Your task to perform on an android device: What's the weather? Image 0: 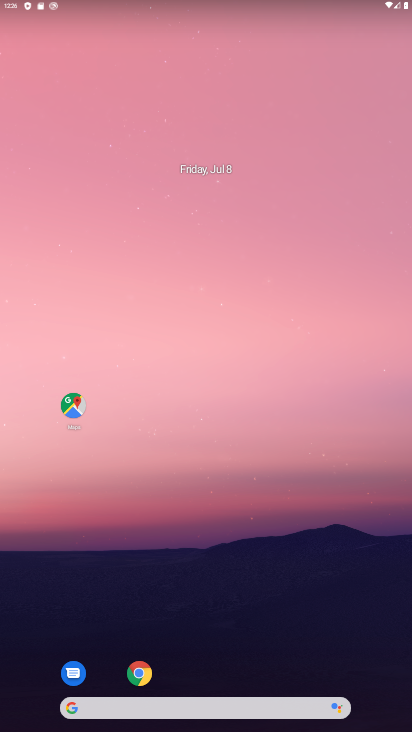
Step 0: drag from (202, 665) to (272, 19)
Your task to perform on an android device: What's the weather? Image 1: 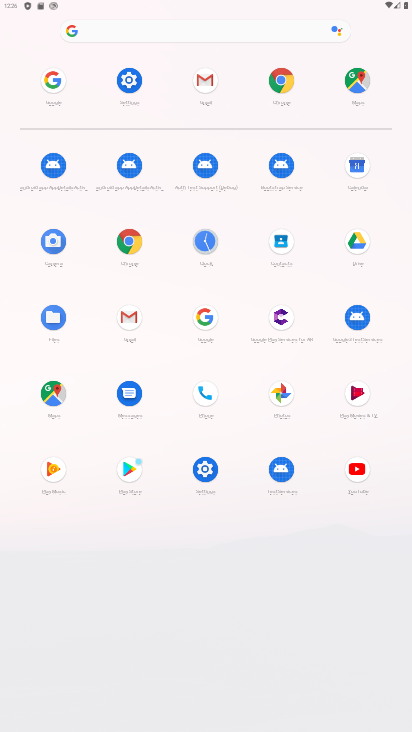
Step 1: click (202, 321)
Your task to perform on an android device: What's the weather? Image 2: 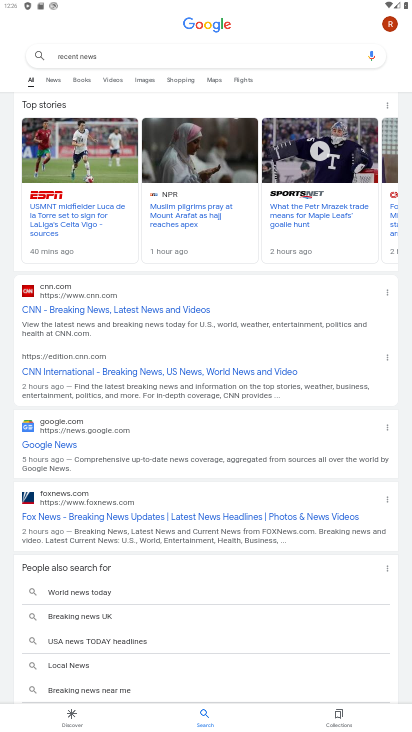
Step 2: click (215, 54)
Your task to perform on an android device: What's the weather? Image 3: 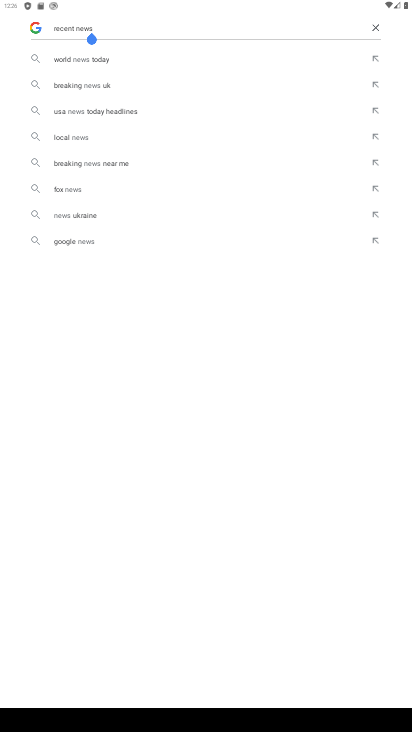
Step 3: click (369, 28)
Your task to perform on an android device: What's the weather? Image 4: 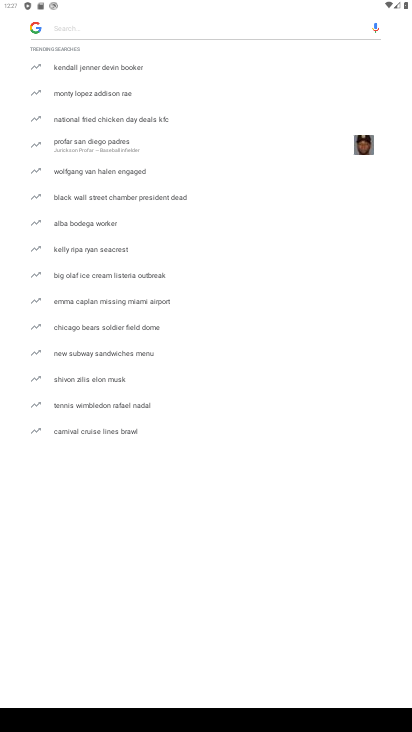
Step 4: type "whats the weather"
Your task to perform on an android device: What's the weather? Image 5: 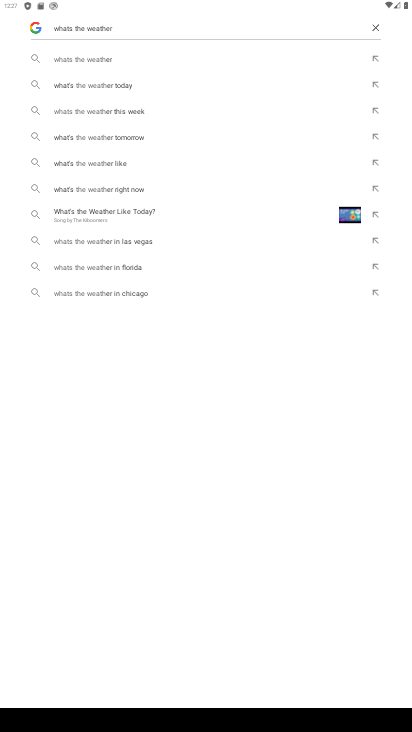
Step 5: click (116, 63)
Your task to perform on an android device: What's the weather? Image 6: 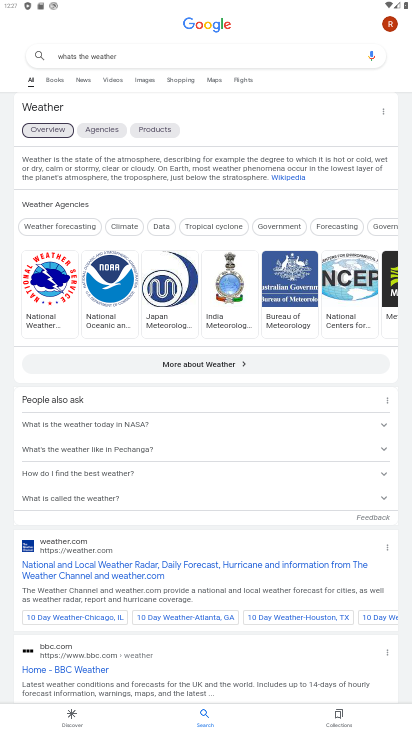
Step 6: task complete